Your task to perform on an android device: Open calendar and show me the third week of next month Image 0: 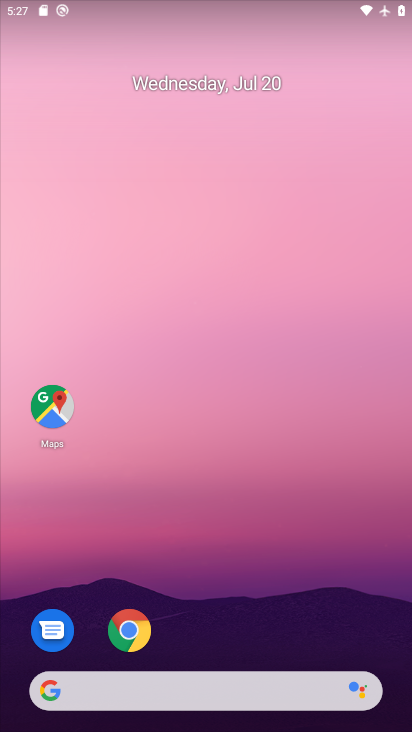
Step 0: drag from (265, 523) to (367, 1)
Your task to perform on an android device: Open calendar and show me the third week of next month Image 1: 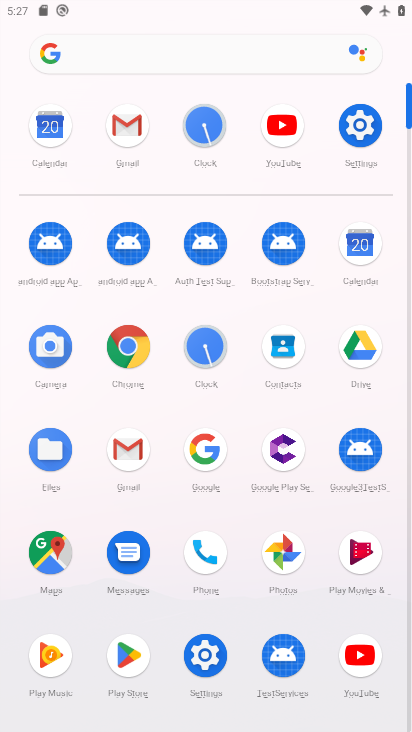
Step 1: click (364, 258)
Your task to perform on an android device: Open calendar and show me the third week of next month Image 2: 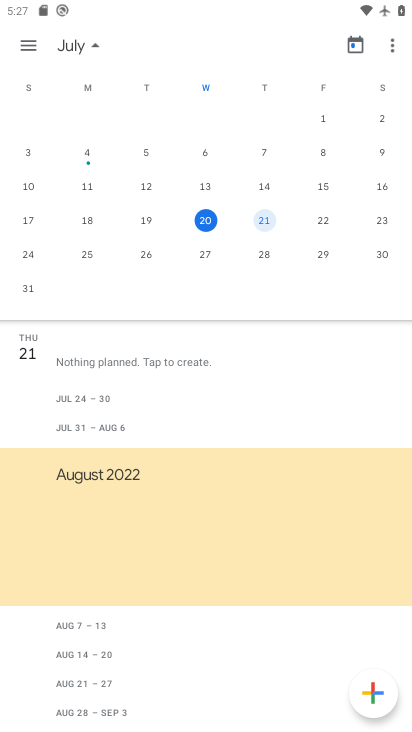
Step 2: drag from (359, 186) to (14, 126)
Your task to perform on an android device: Open calendar and show me the third week of next month Image 3: 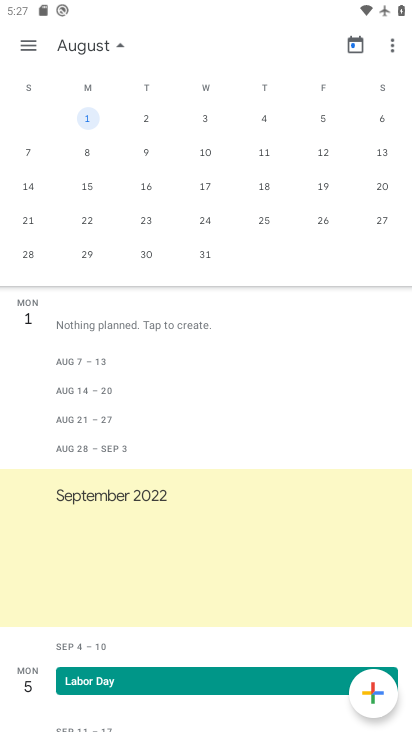
Step 3: click (82, 185)
Your task to perform on an android device: Open calendar and show me the third week of next month Image 4: 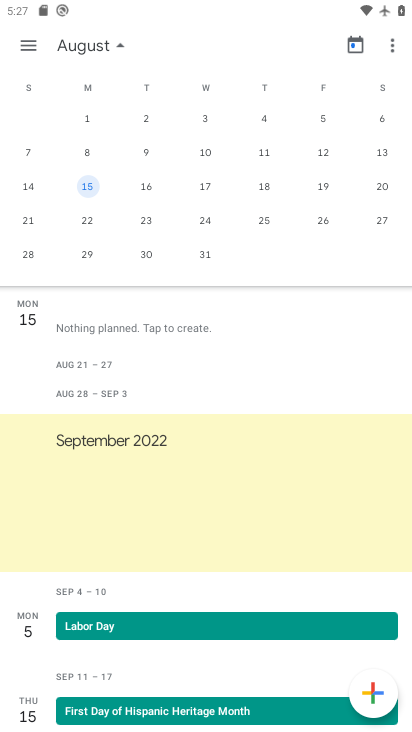
Step 4: click (153, 188)
Your task to perform on an android device: Open calendar and show me the third week of next month Image 5: 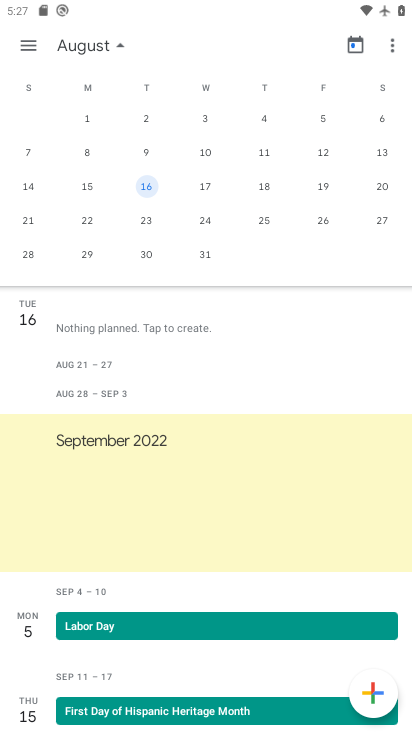
Step 5: click (212, 189)
Your task to perform on an android device: Open calendar and show me the third week of next month Image 6: 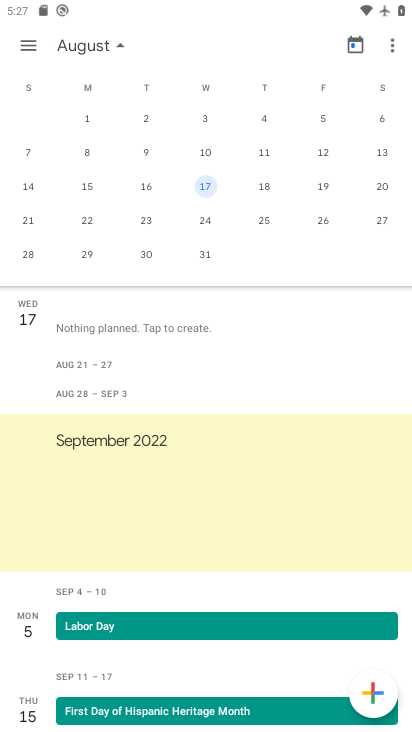
Step 6: click (273, 186)
Your task to perform on an android device: Open calendar and show me the third week of next month Image 7: 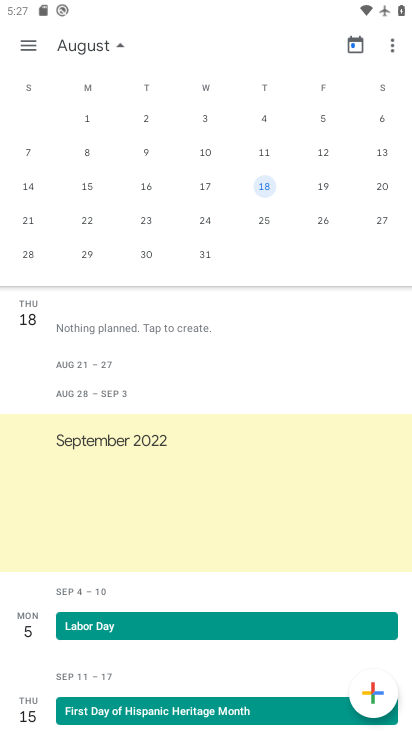
Step 7: click (335, 186)
Your task to perform on an android device: Open calendar and show me the third week of next month Image 8: 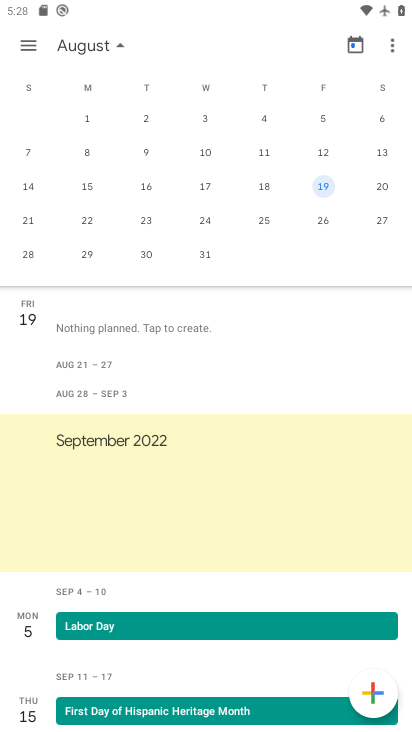
Step 8: click (385, 196)
Your task to perform on an android device: Open calendar and show me the third week of next month Image 9: 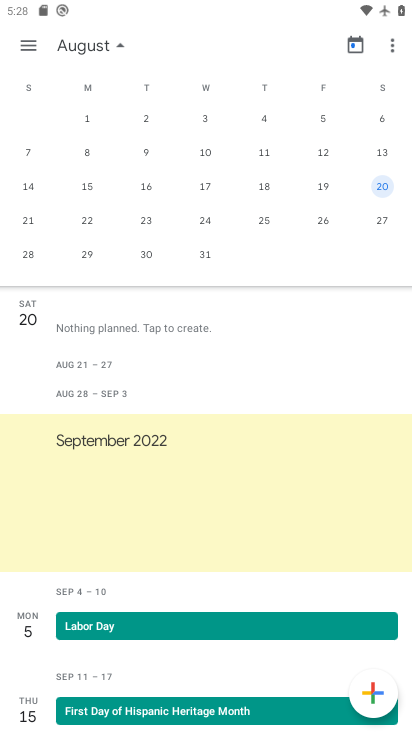
Step 9: click (22, 221)
Your task to perform on an android device: Open calendar and show me the third week of next month Image 10: 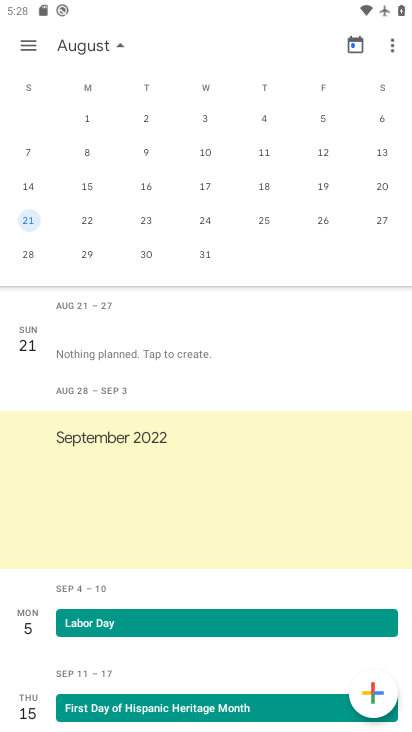
Step 10: task complete